Your task to perform on an android device: Check the news Image 0: 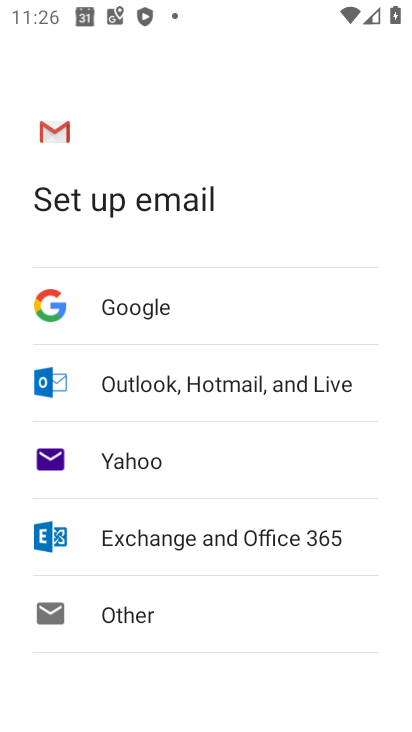
Step 0: drag from (246, 565) to (262, 300)
Your task to perform on an android device: Check the news Image 1: 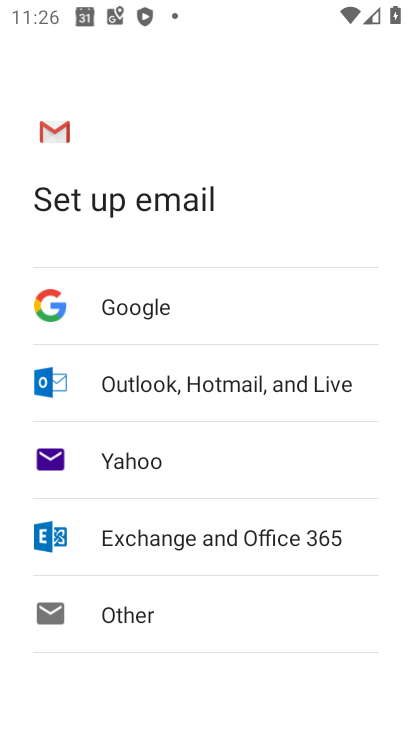
Step 1: press home button
Your task to perform on an android device: Check the news Image 2: 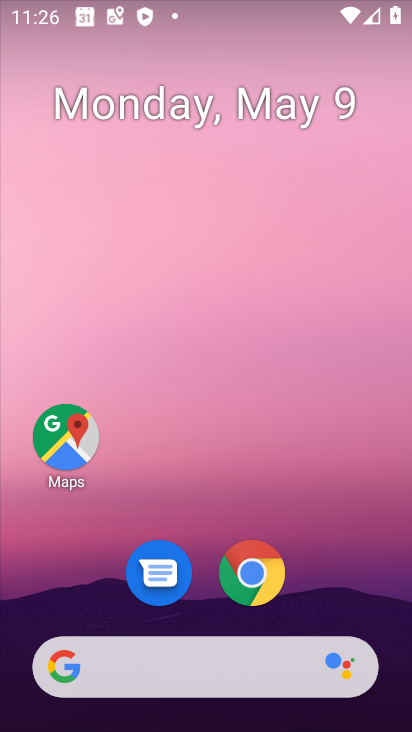
Step 2: drag from (199, 603) to (216, 255)
Your task to perform on an android device: Check the news Image 3: 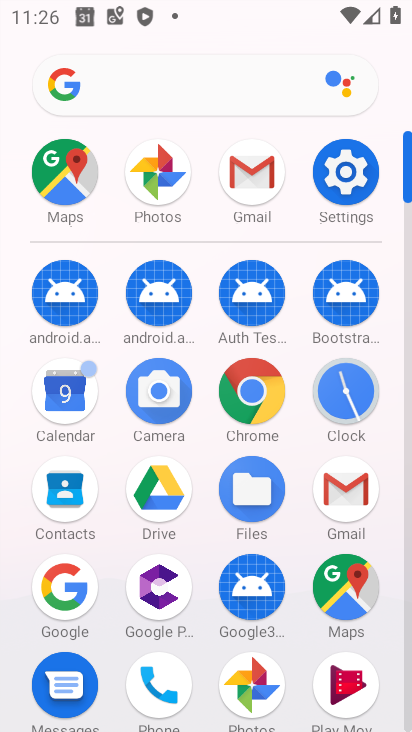
Step 3: click (160, 99)
Your task to perform on an android device: Check the news Image 4: 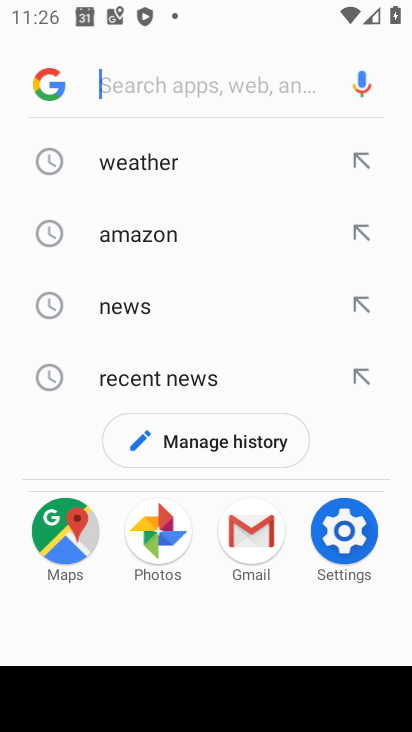
Step 4: click (152, 292)
Your task to perform on an android device: Check the news Image 5: 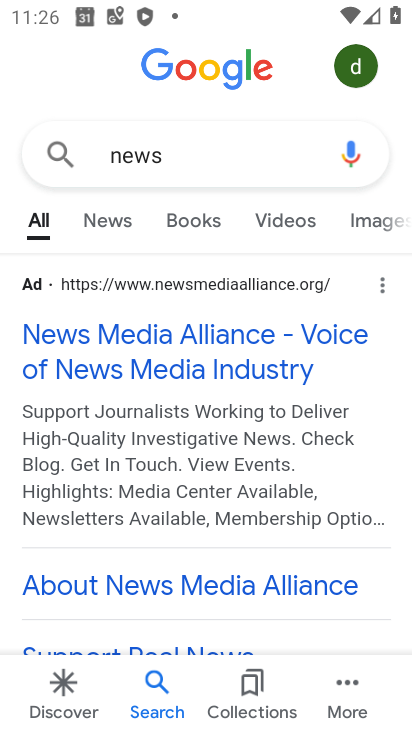
Step 5: drag from (236, 525) to (259, 311)
Your task to perform on an android device: Check the news Image 6: 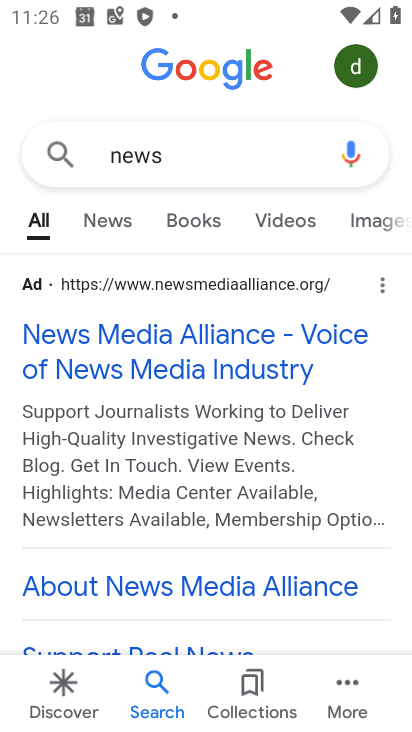
Step 6: click (153, 348)
Your task to perform on an android device: Check the news Image 7: 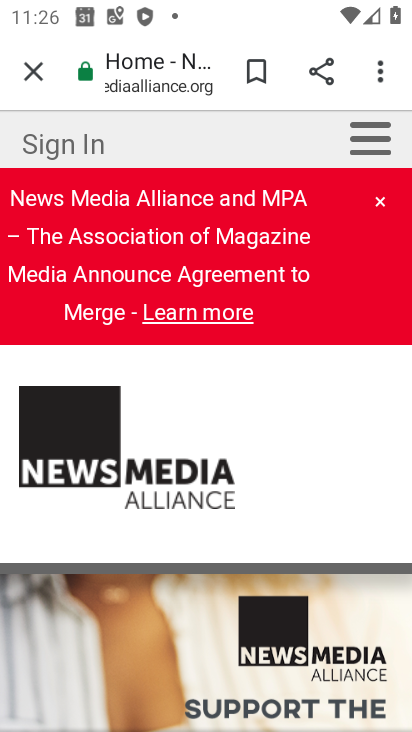
Step 7: task complete